Your task to perform on an android device: Open ESPN.com Image 0: 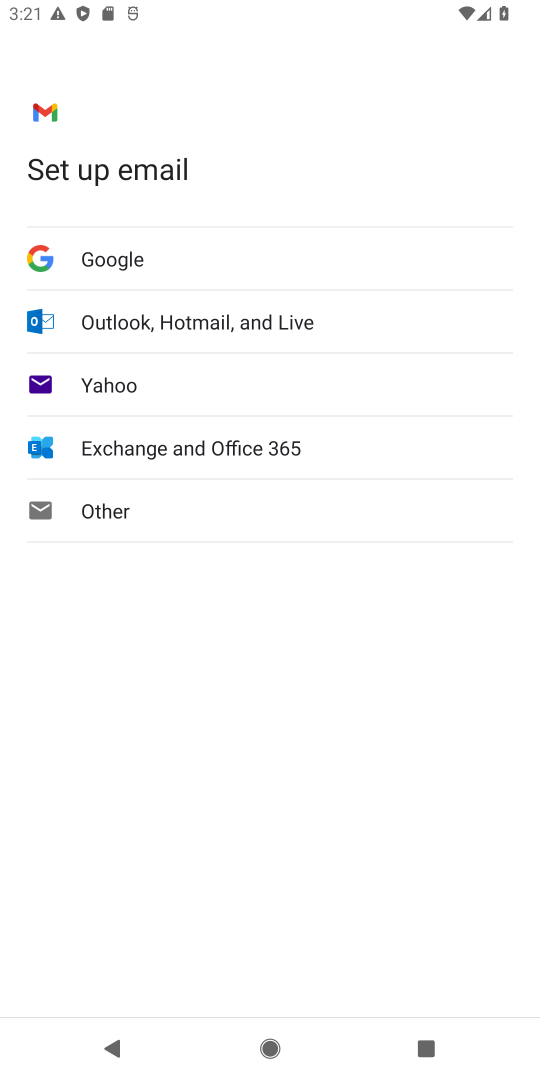
Step 0: press home button
Your task to perform on an android device: Open ESPN.com Image 1: 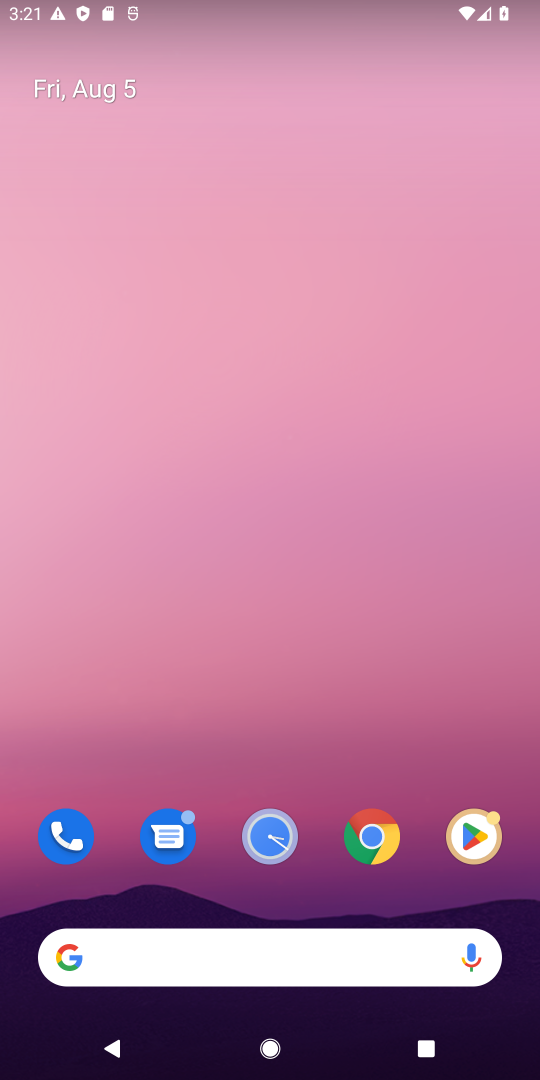
Step 1: click (363, 829)
Your task to perform on an android device: Open ESPN.com Image 2: 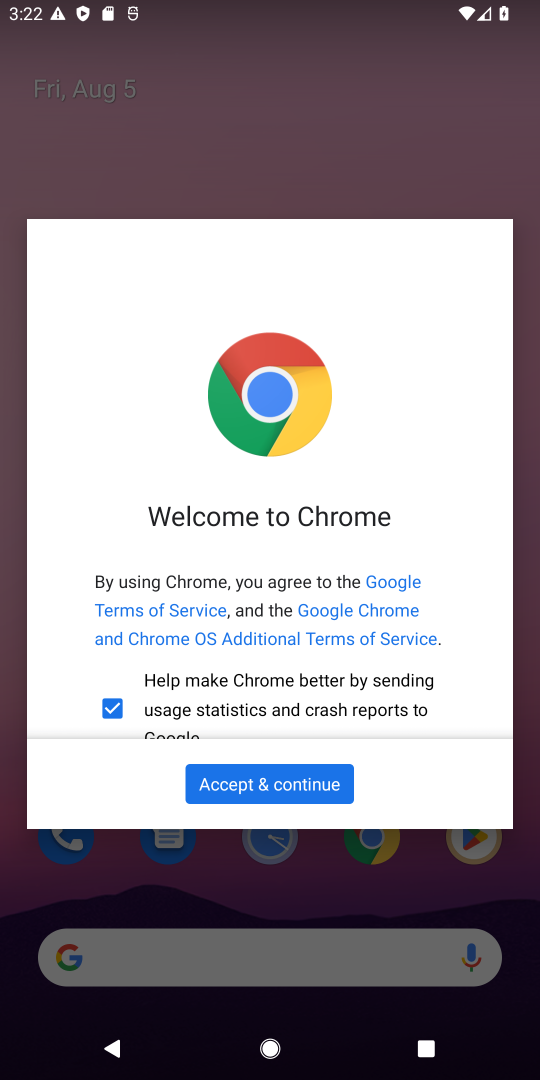
Step 2: click (309, 808)
Your task to perform on an android device: Open ESPN.com Image 3: 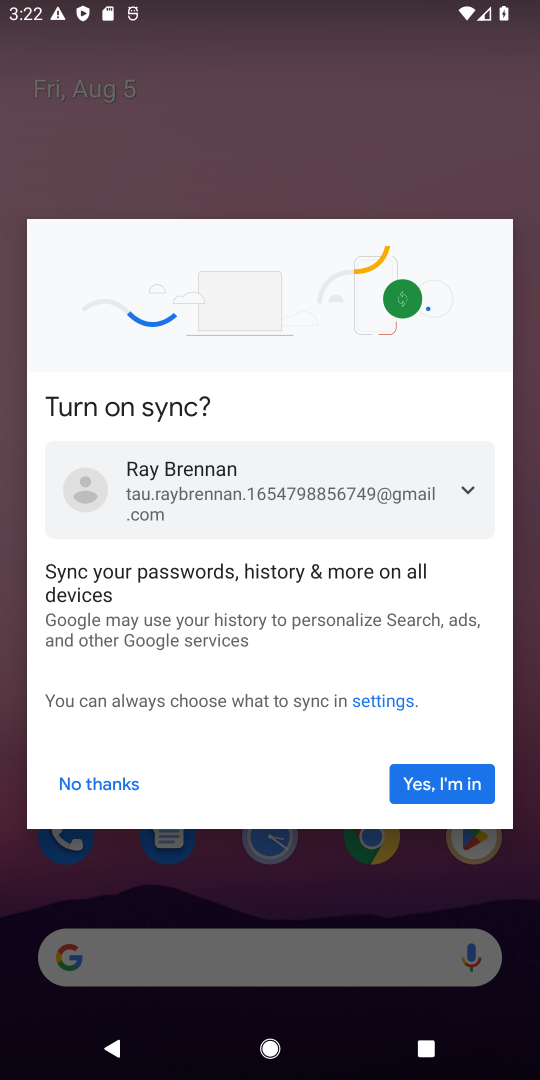
Step 3: click (405, 776)
Your task to perform on an android device: Open ESPN.com Image 4: 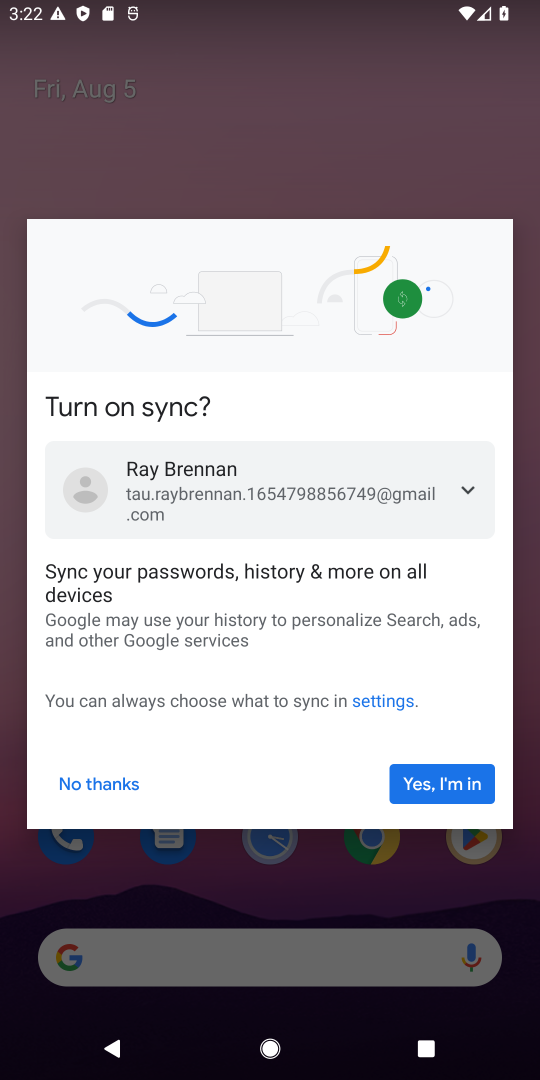
Step 4: click (457, 788)
Your task to perform on an android device: Open ESPN.com Image 5: 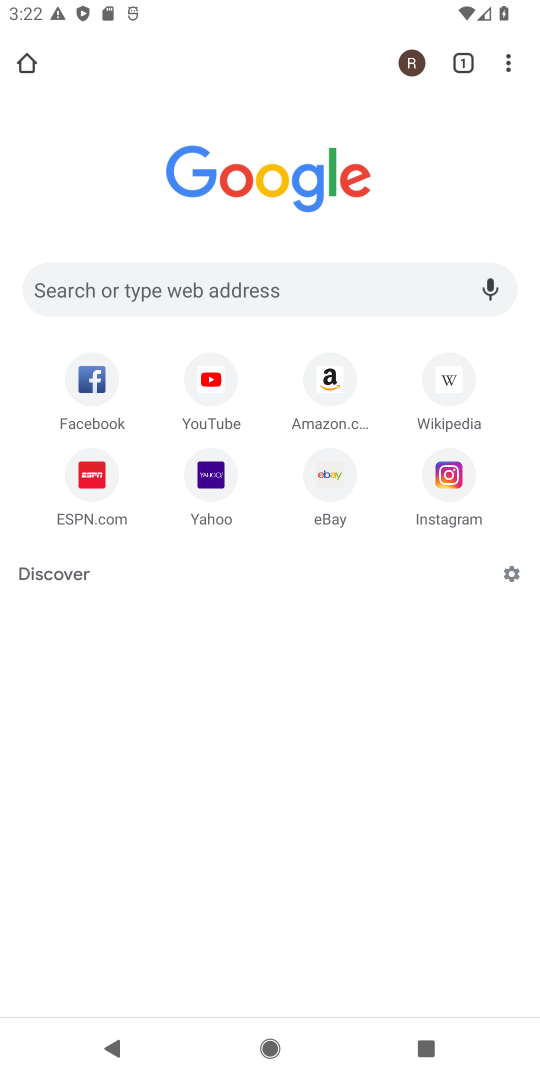
Step 5: click (90, 485)
Your task to perform on an android device: Open ESPN.com Image 6: 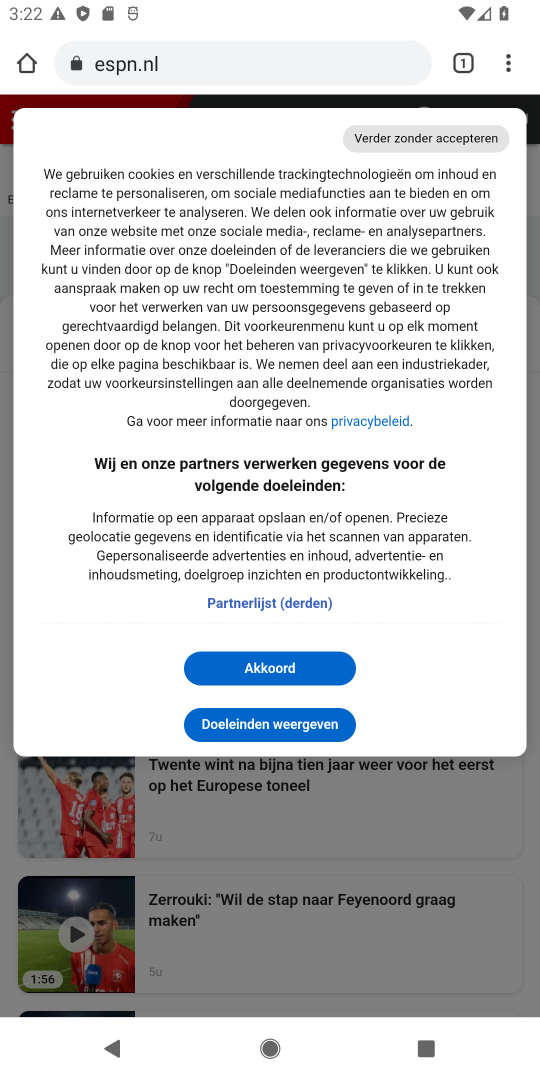
Step 6: task complete